Your task to perform on an android device: Open settings Image 0: 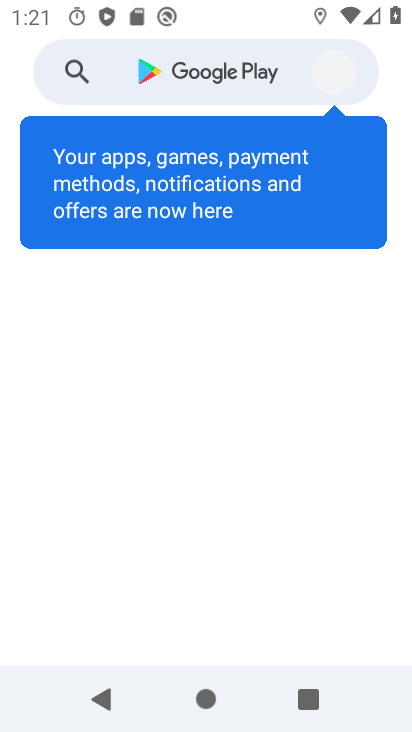
Step 0: press home button
Your task to perform on an android device: Open settings Image 1: 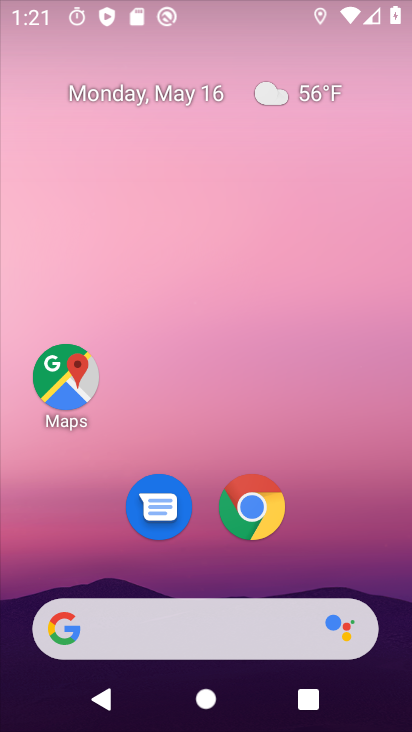
Step 1: drag from (208, 547) to (210, 84)
Your task to perform on an android device: Open settings Image 2: 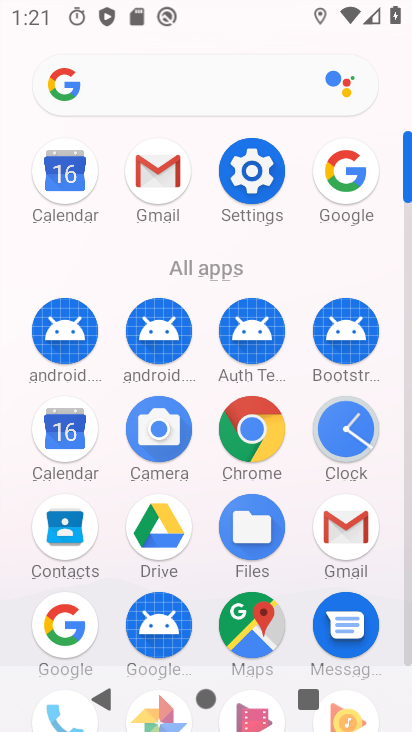
Step 2: click (250, 170)
Your task to perform on an android device: Open settings Image 3: 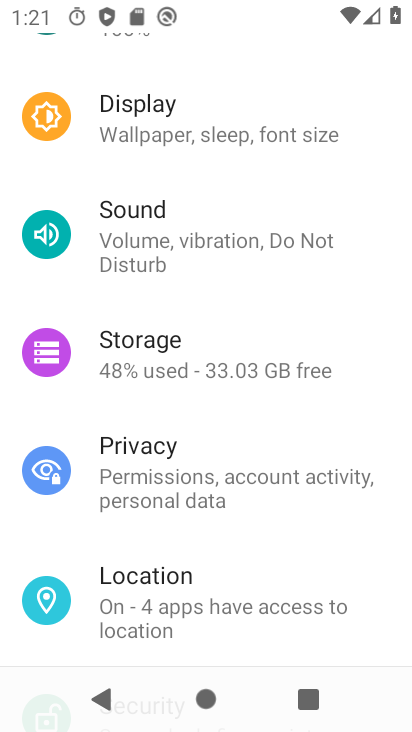
Step 3: task complete